Your task to perform on an android device: Go to Reddit.com Image 0: 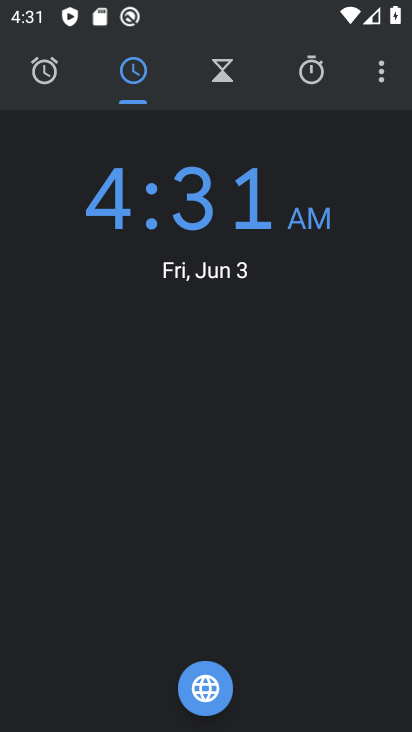
Step 0: press home button
Your task to perform on an android device: Go to Reddit.com Image 1: 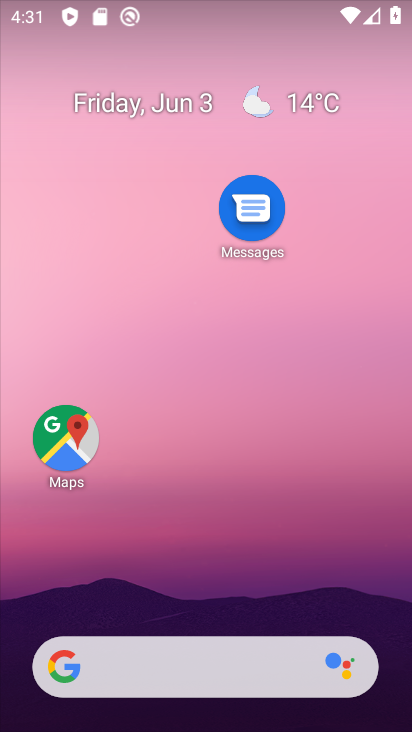
Step 1: drag from (252, 558) to (260, 190)
Your task to perform on an android device: Go to Reddit.com Image 2: 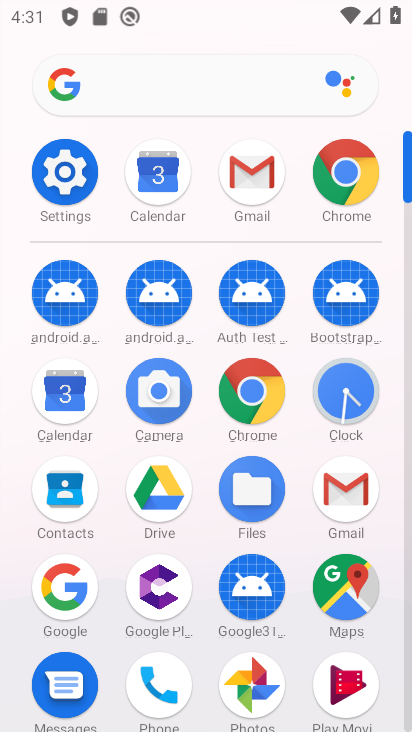
Step 2: click (339, 185)
Your task to perform on an android device: Go to Reddit.com Image 3: 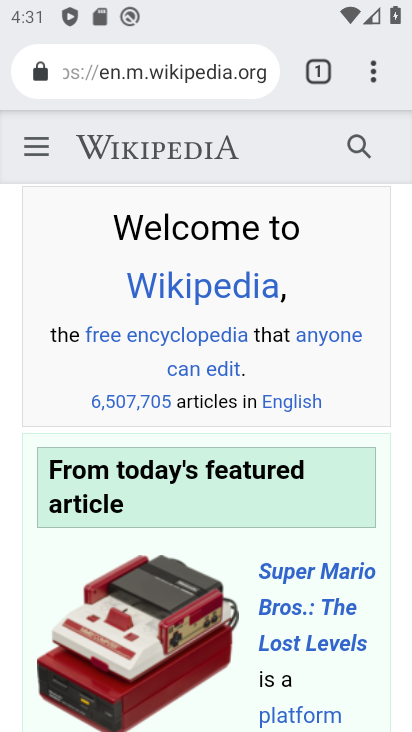
Step 3: press back button
Your task to perform on an android device: Go to Reddit.com Image 4: 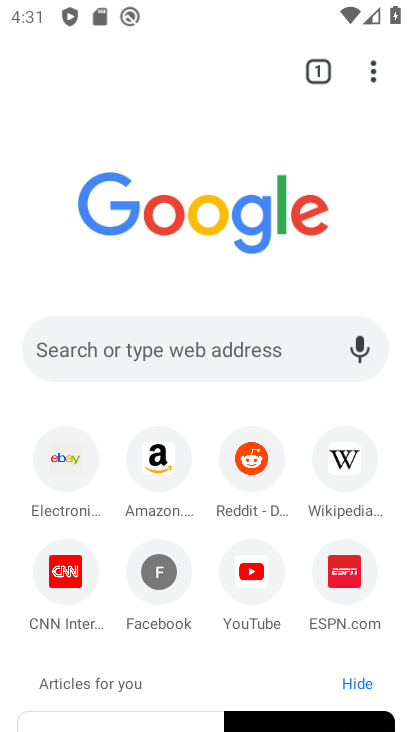
Step 4: press back button
Your task to perform on an android device: Go to Reddit.com Image 5: 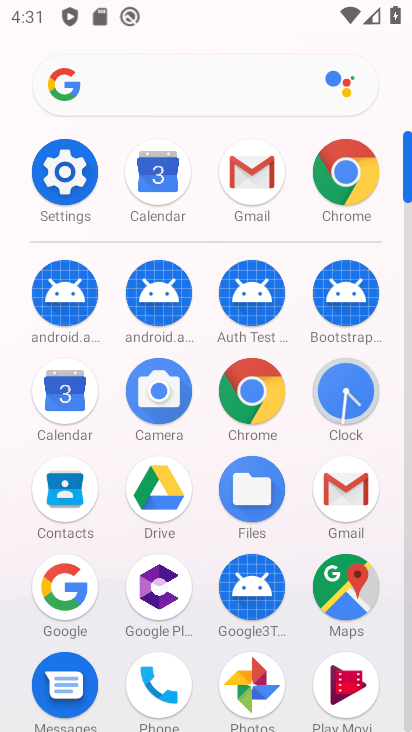
Step 5: click (345, 182)
Your task to perform on an android device: Go to Reddit.com Image 6: 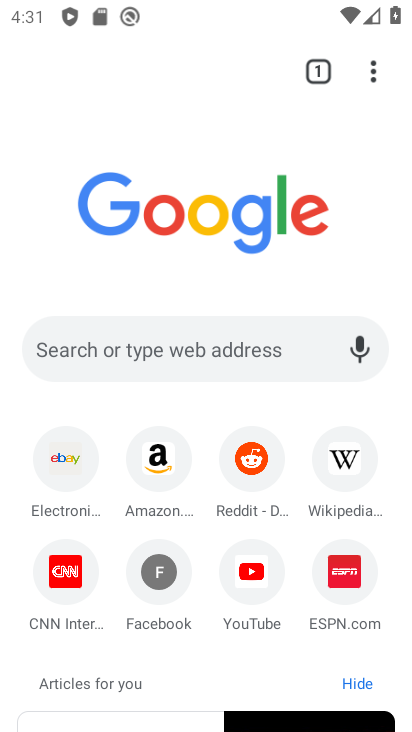
Step 6: click (205, 344)
Your task to perform on an android device: Go to Reddit.com Image 7: 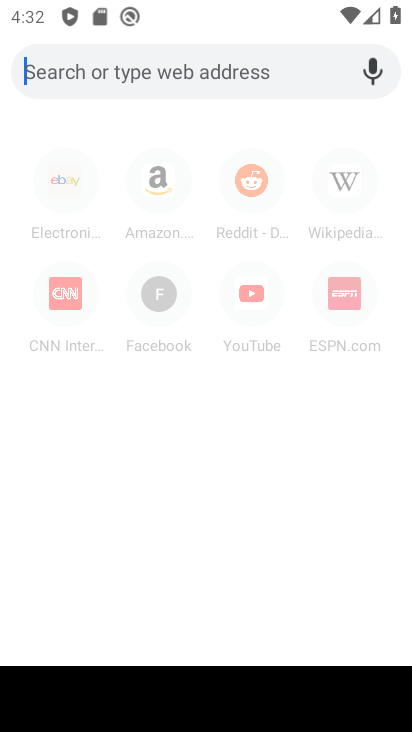
Step 7: click (252, 232)
Your task to perform on an android device: Go to Reddit.com Image 8: 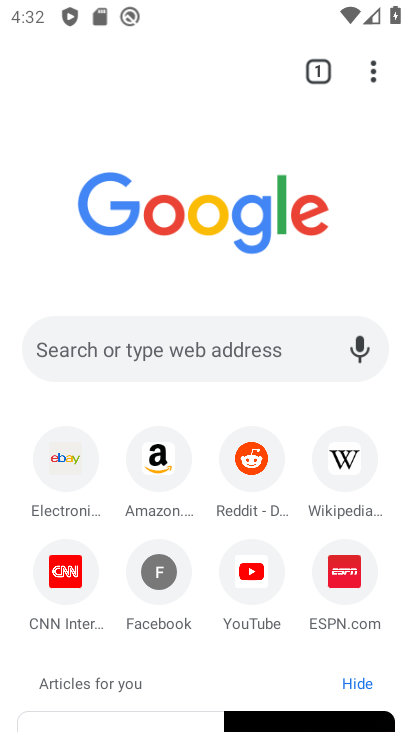
Step 8: click (253, 444)
Your task to perform on an android device: Go to Reddit.com Image 9: 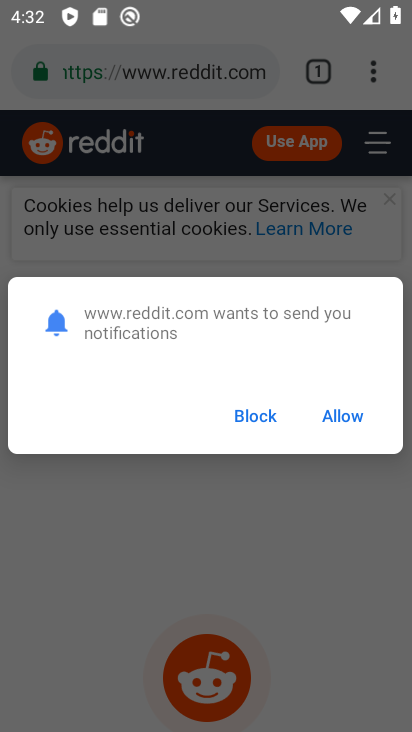
Step 9: click (267, 404)
Your task to perform on an android device: Go to Reddit.com Image 10: 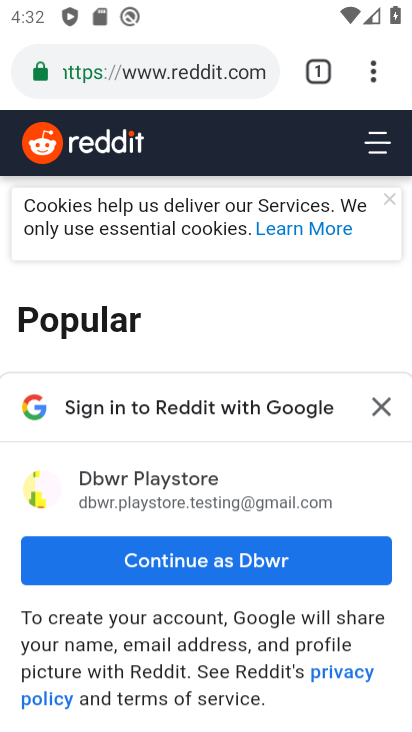
Step 10: task complete